Your task to perform on an android device: Open the phone app and click the voicemail tab. Image 0: 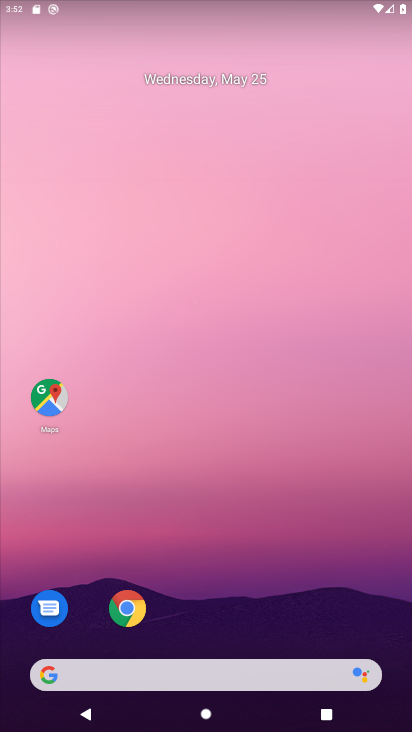
Step 0: drag from (286, 599) to (240, 42)
Your task to perform on an android device: Open the phone app and click the voicemail tab. Image 1: 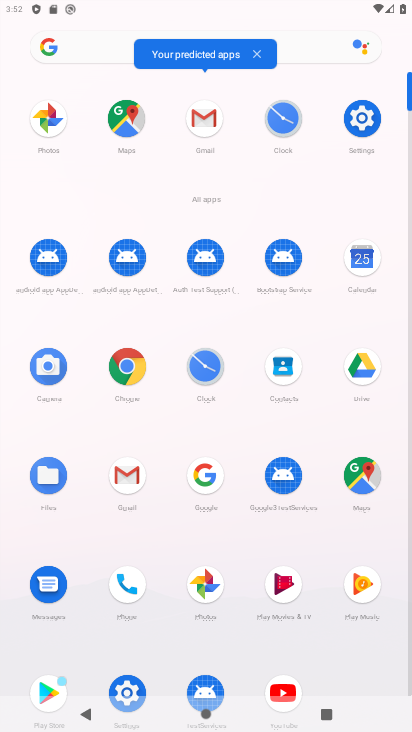
Step 1: click (124, 586)
Your task to perform on an android device: Open the phone app and click the voicemail tab. Image 2: 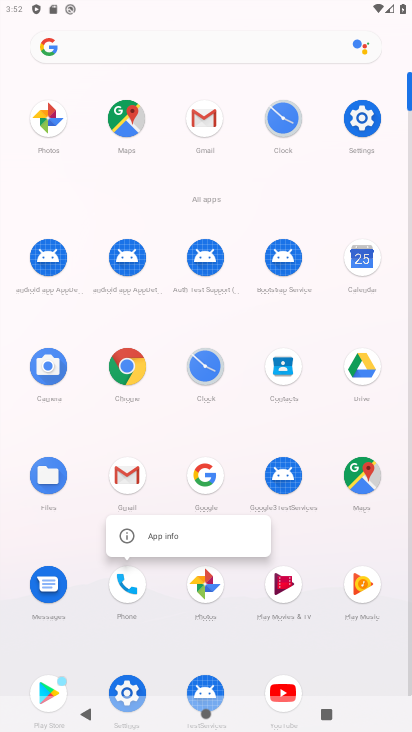
Step 2: click (124, 586)
Your task to perform on an android device: Open the phone app and click the voicemail tab. Image 3: 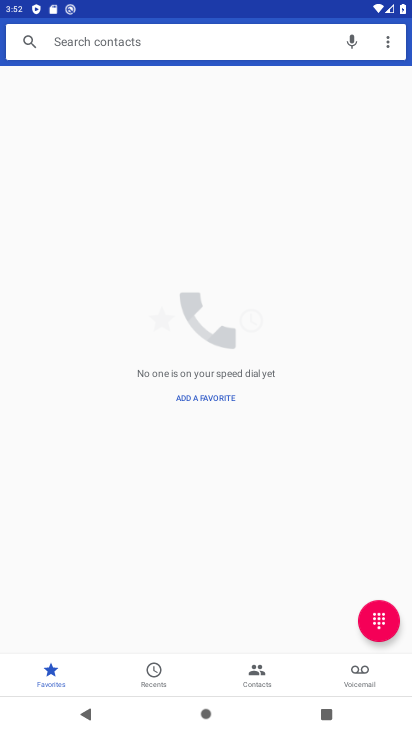
Step 3: click (366, 670)
Your task to perform on an android device: Open the phone app and click the voicemail tab. Image 4: 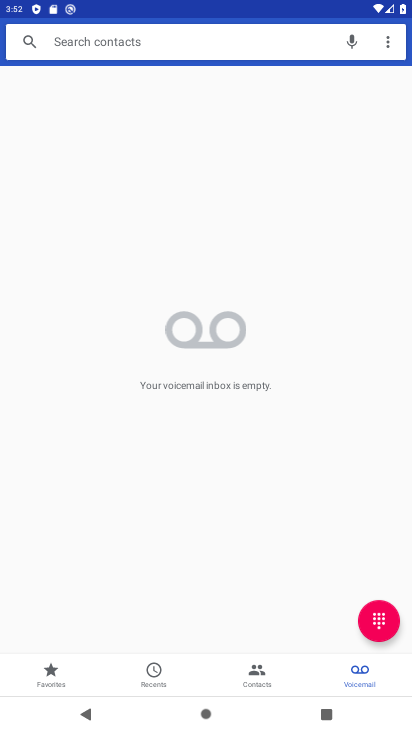
Step 4: task complete